Your task to perform on an android device: empty trash in the gmail app Image 0: 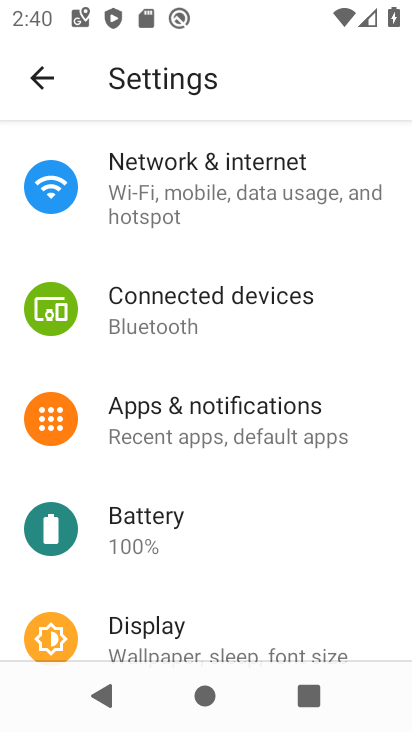
Step 0: press home button
Your task to perform on an android device: empty trash in the gmail app Image 1: 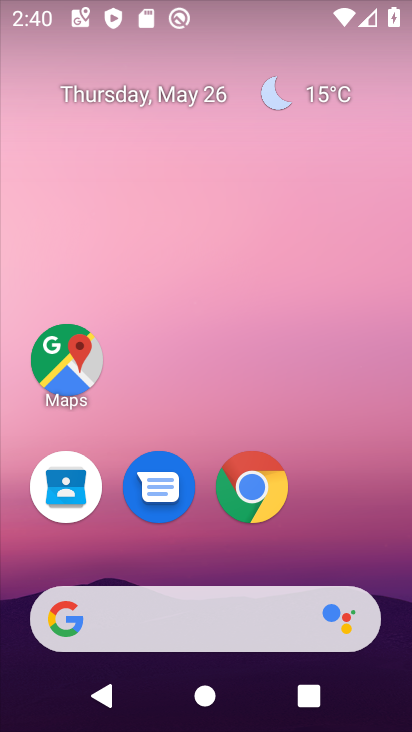
Step 1: drag from (204, 576) to (201, 262)
Your task to perform on an android device: empty trash in the gmail app Image 2: 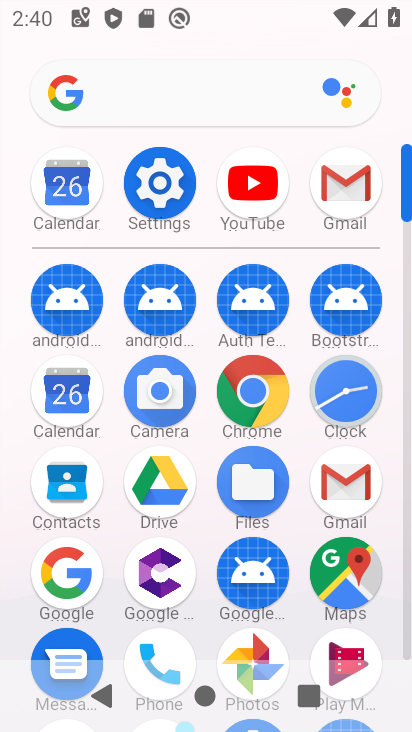
Step 2: click (318, 194)
Your task to perform on an android device: empty trash in the gmail app Image 3: 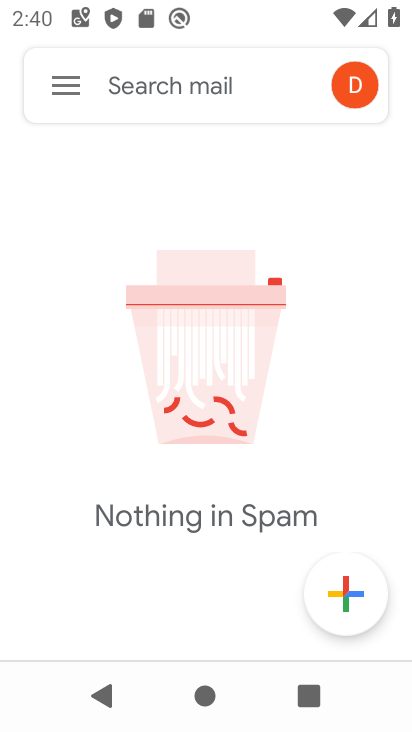
Step 3: task complete